Your task to perform on an android device: Open Google Chrome Image 0: 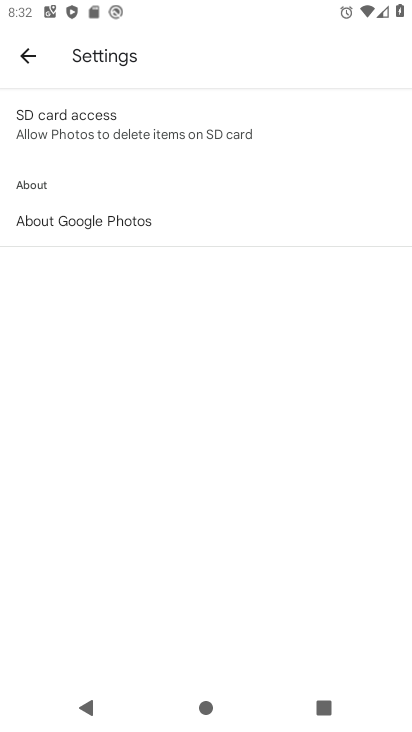
Step 0: press home button
Your task to perform on an android device: Open Google Chrome Image 1: 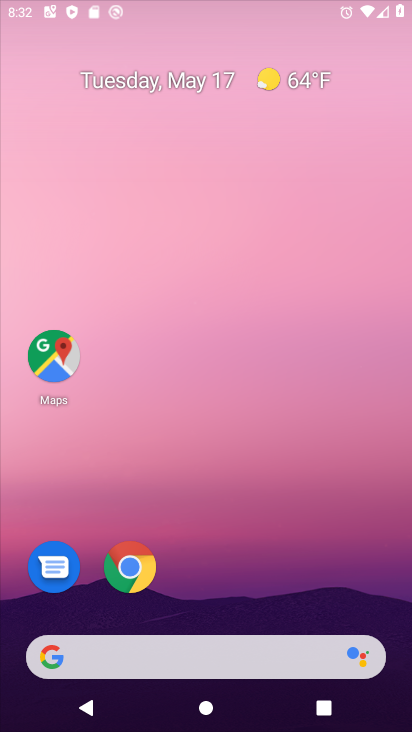
Step 1: drag from (351, 589) to (219, 45)
Your task to perform on an android device: Open Google Chrome Image 2: 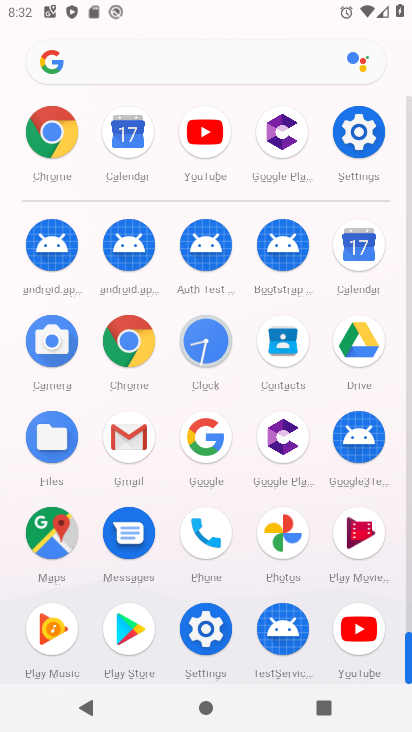
Step 2: click (135, 353)
Your task to perform on an android device: Open Google Chrome Image 3: 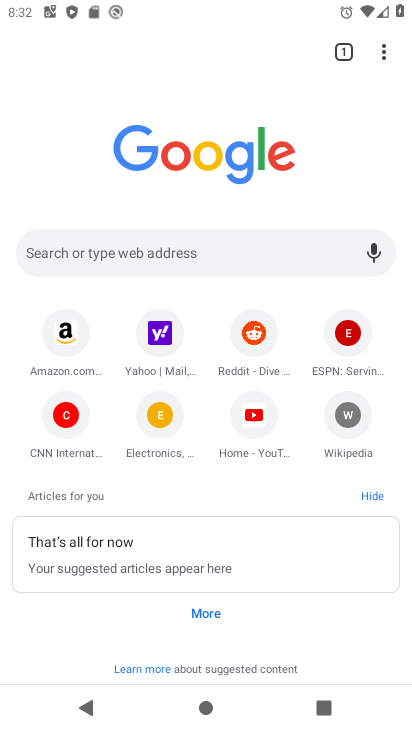
Step 3: task complete